Your task to perform on an android device: change the clock display to analog Image 0: 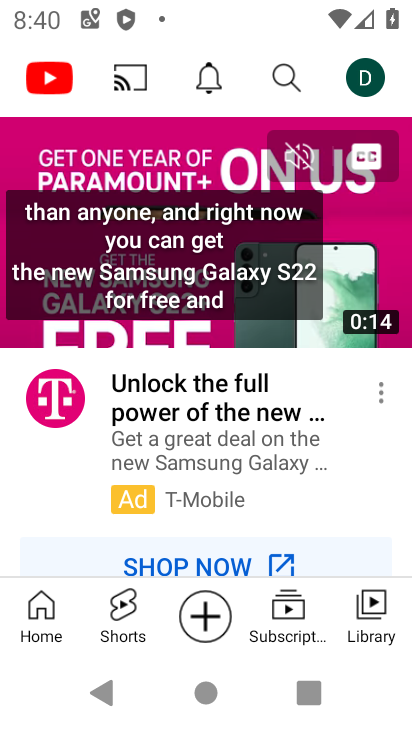
Step 0: press home button
Your task to perform on an android device: change the clock display to analog Image 1: 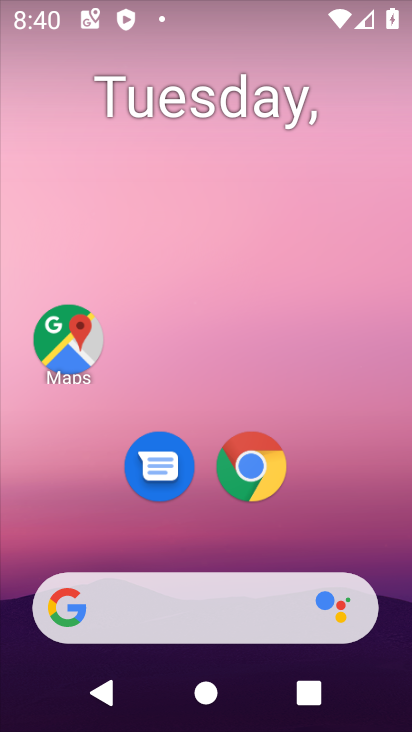
Step 1: drag from (340, 546) to (324, 185)
Your task to perform on an android device: change the clock display to analog Image 2: 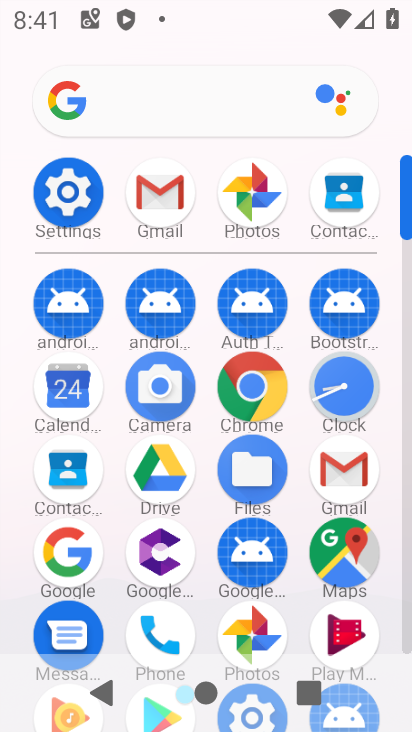
Step 2: click (79, 217)
Your task to perform on an android device: change the clock display to analog Image 3: 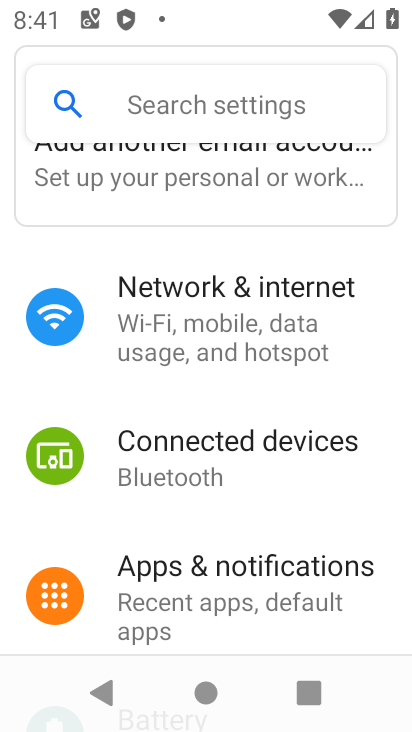
Step 3: press home button
Your task to perform on an android device: change the clock display to analog Image 4: 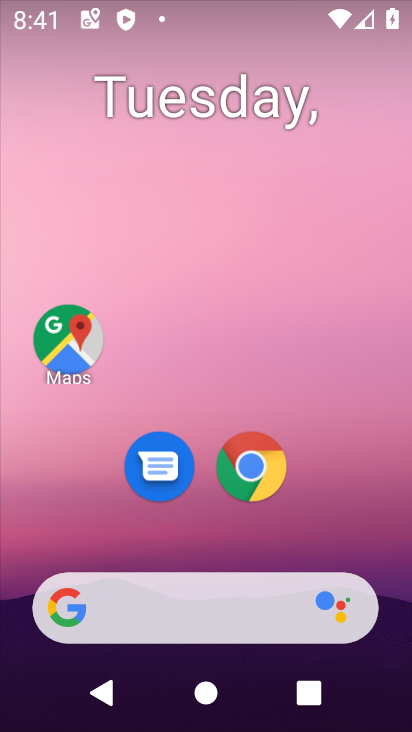
Step 4: drag from (350, 504) to (350, 96)
Your task to perform on an android device: change the clock display to analog Image 5: 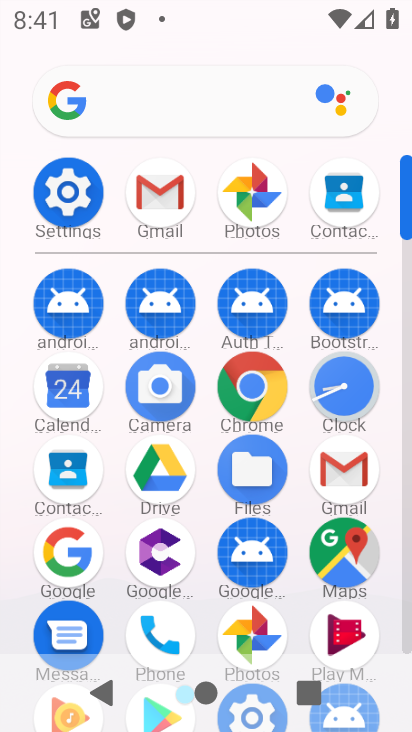
Step 5: click (335, 405)
Your task to perform on an android device: change the clock display to analog Image 6: 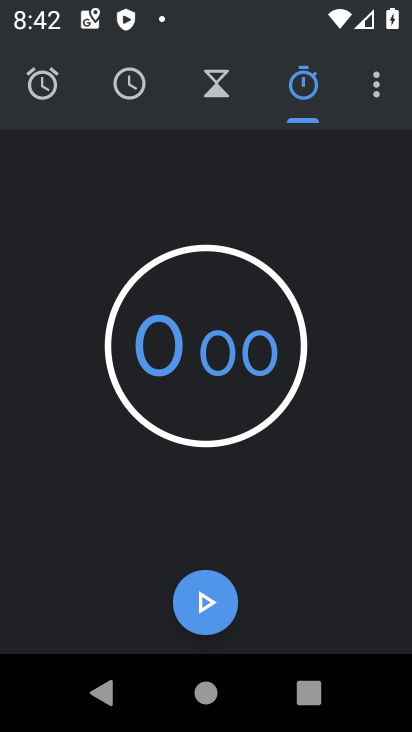
Step 6: click (412, 68)
Your task to perform on an android device: change the clock display to analog Image 7: 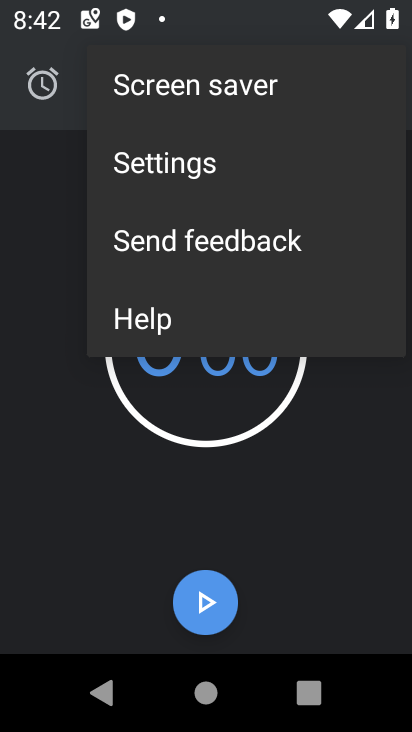
Step 7: click (214, 183)
Your task to perform on an android device: change the clock display to analog Image 8: 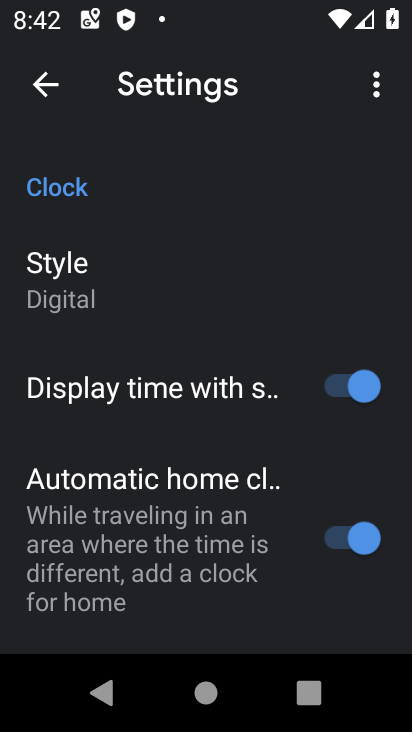
Step 8: click (131, 266)
Your task to perform on an android device: change the clock display to analog Image 9: 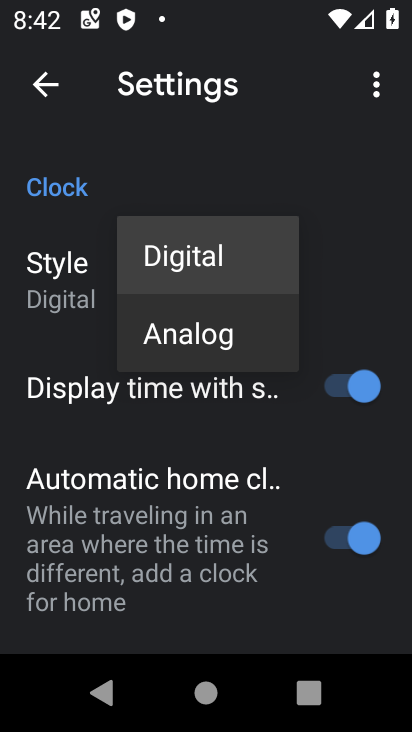
Step 9: click (158, 328)
Your task to perform on an android device: change the clock display to analog Image 10: 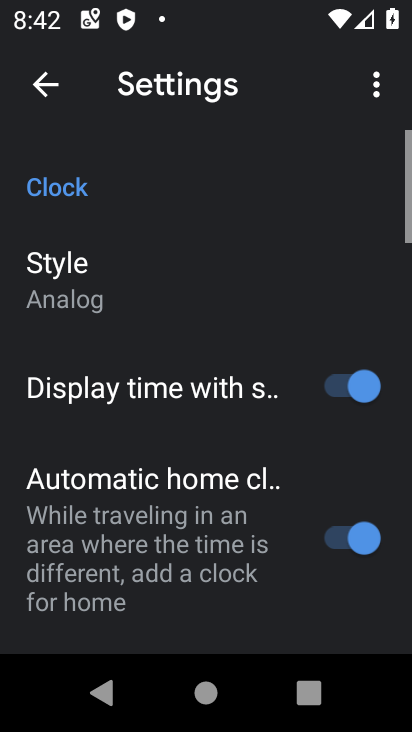
Step 10: task complete